Your task to perform on an android device: set default search engine in the chrome app Image 0: 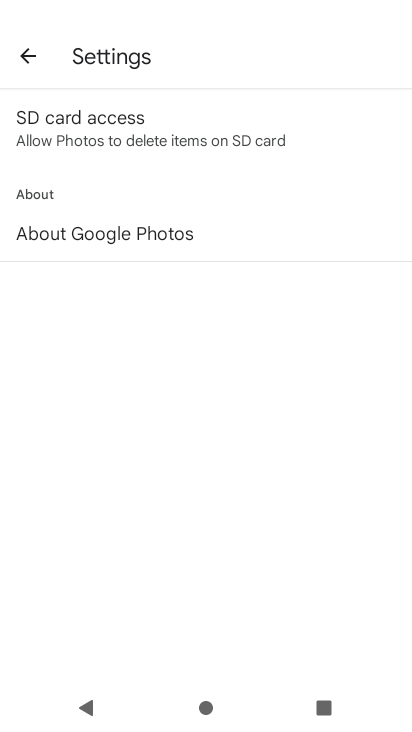
Step 0: press home button
Your task to perform on an android device: set default search engine in the chrome app Image 1: 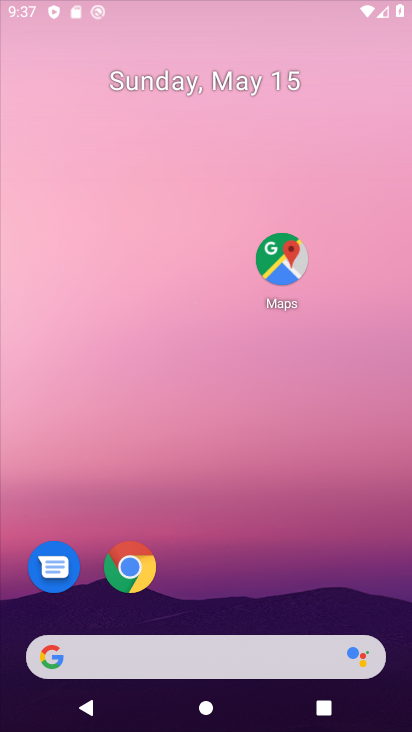
Step 1: drag from (226, 584) to (193, 74)
Your task to perform on an android device: set default search engine in the chrome app Image 2: 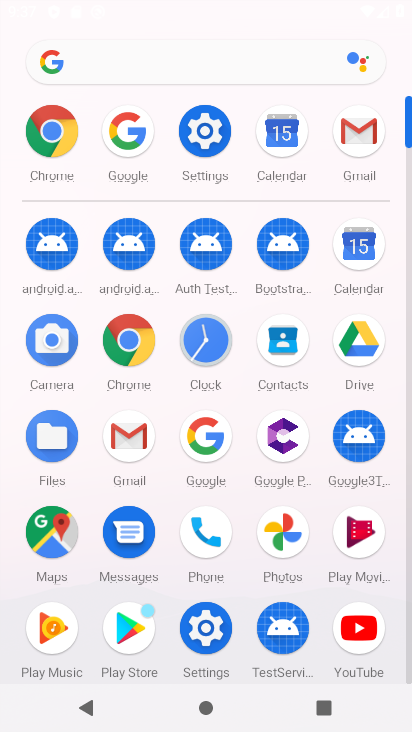
Step 2: click (133, 347)
Your task to perform on an android device: set default search engine in the chrome app Image 3: 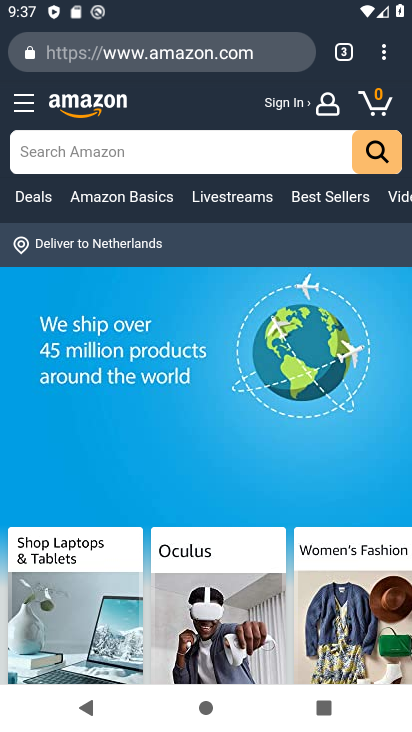
Step 3: click (375, 54)
Your task to perform on an android device: set default search engine in the chrome app Image 4: 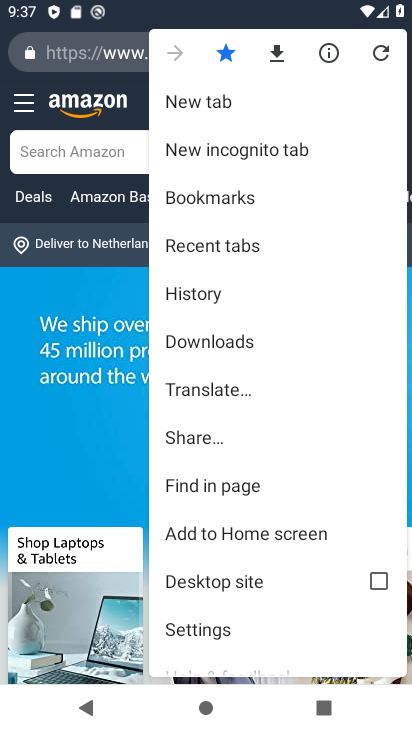
Step 4: click (231, 622)
Your task to perform on an android device: set default search engine in the chrome app Image 5: 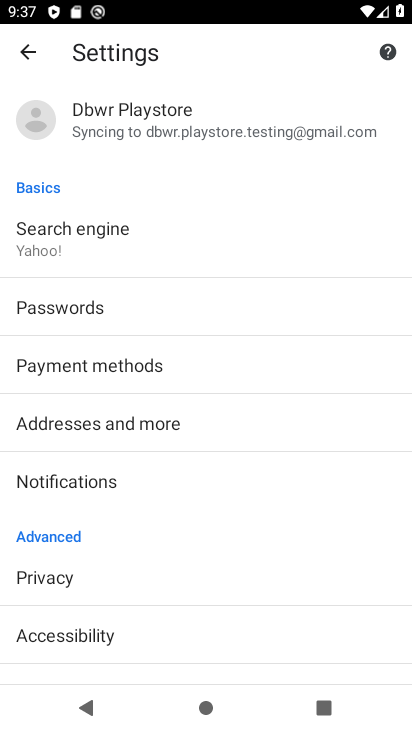
Step 5: click (91, 225)
Your task to perform on an android device: set default search engine in the chrome app Image 6: 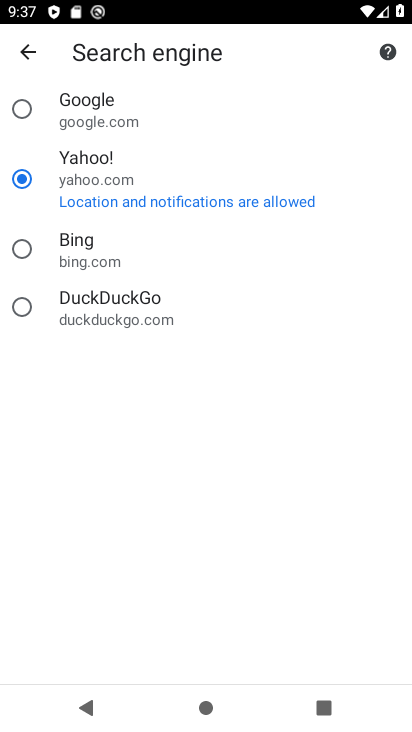
Step 6: click (19, 109)
Your task to perform on an android device: set default search engine in the chrome app Image 7: 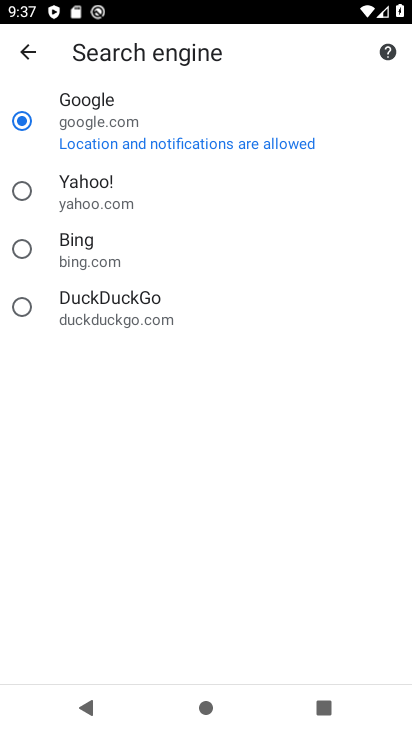
Step 7: task complete